Your task to perform on an android device: turn on sleep mode Image 0: 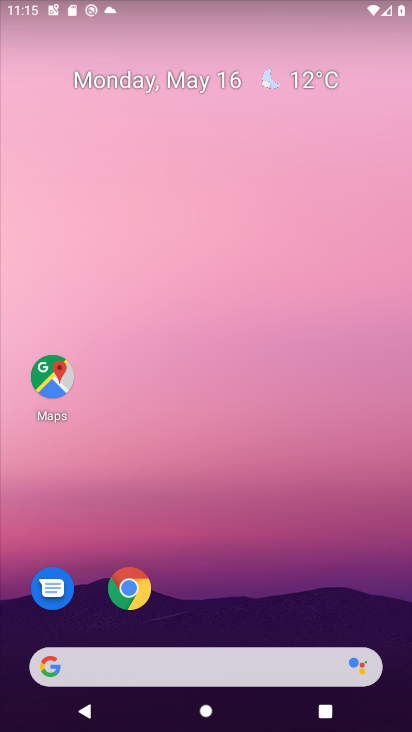
Step 0: drag from (202, 570) to (229, 16)
Your task to perform on an android device: turn on sleep mode Image 1: 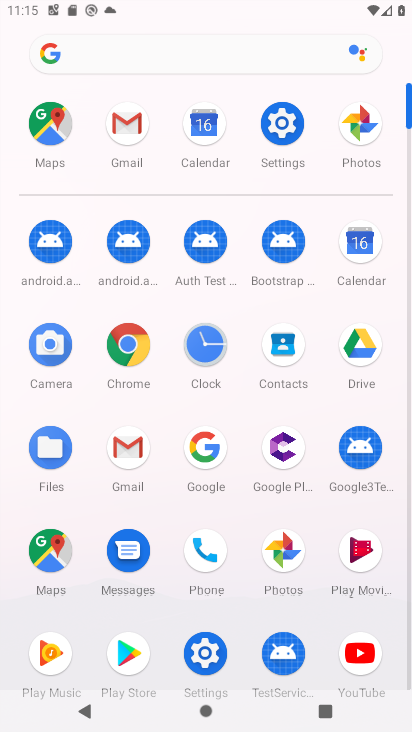
Step 1: click (280, 121)
Your task to perform on an android device: turn on sleep mode Image 2: 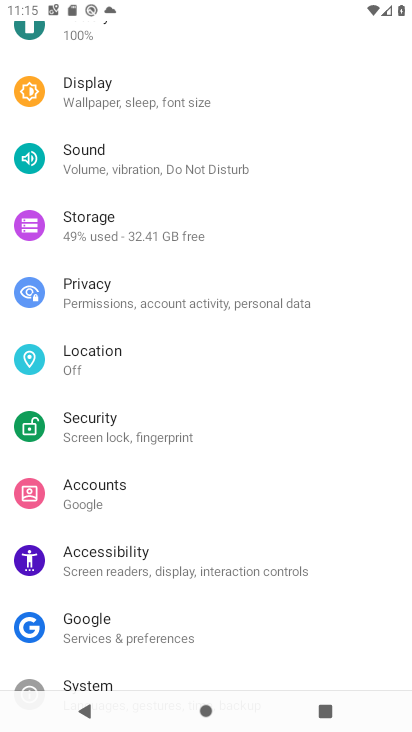
Step 2: click (119, 81)
Your task to perform on an android device: turn on sleep mode Image 3: 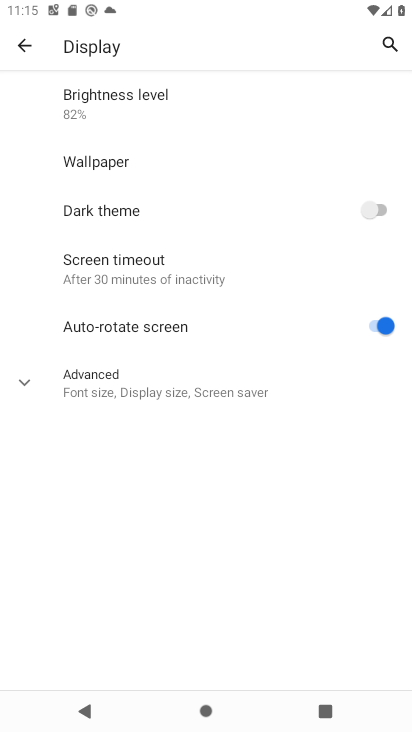
Step 3: click (24, 373)
Your task to perform on an android device: turn on sleep mode Image 4: 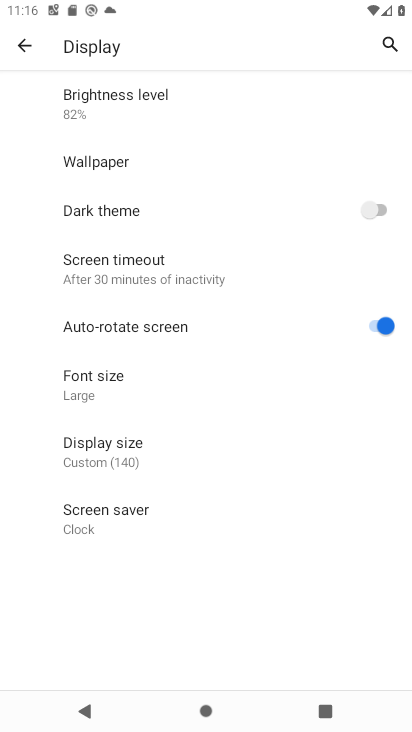
Step 4: task complete